Your task to perform on an android device: install app "Contacts" Image 0: 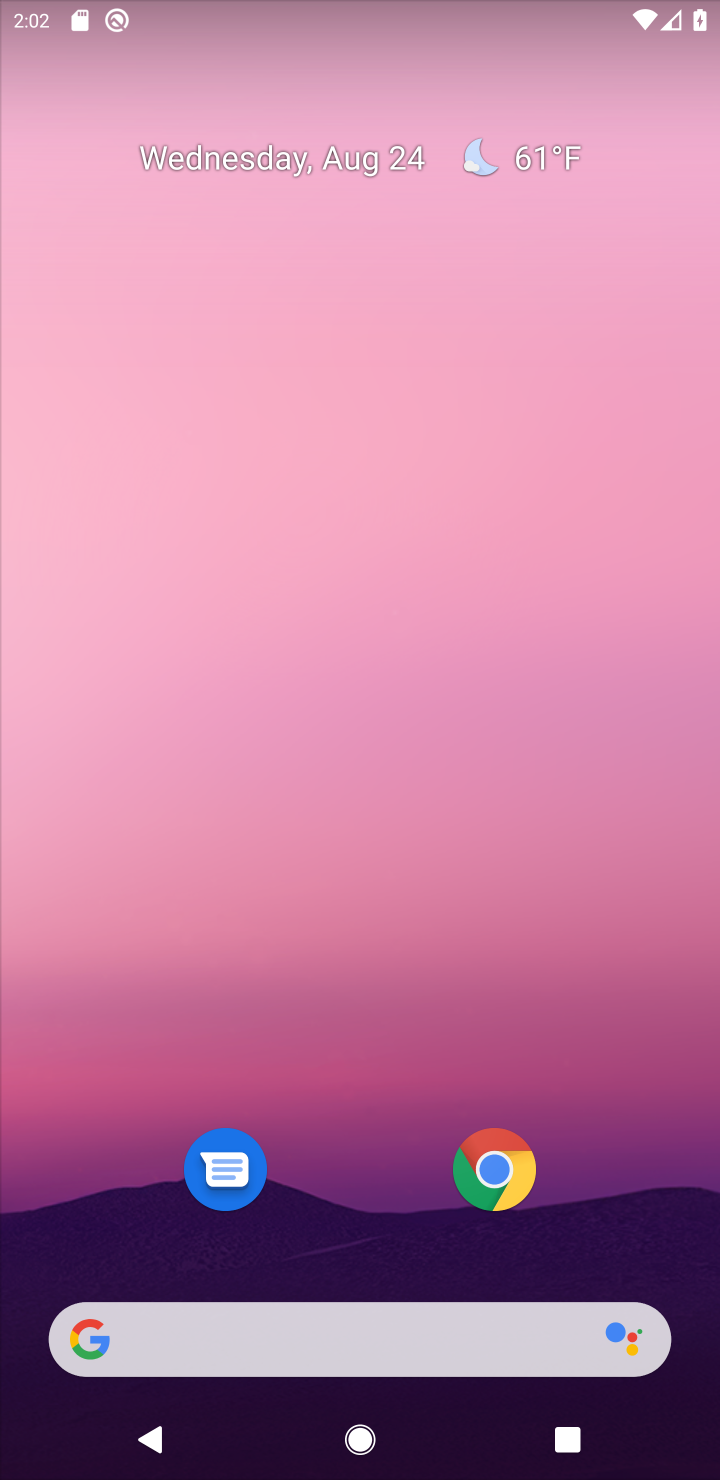
Step 0: drag from (472, 1302) to (358, 9)
Your task to perform on an android device: install app "Contacts" Image 1: 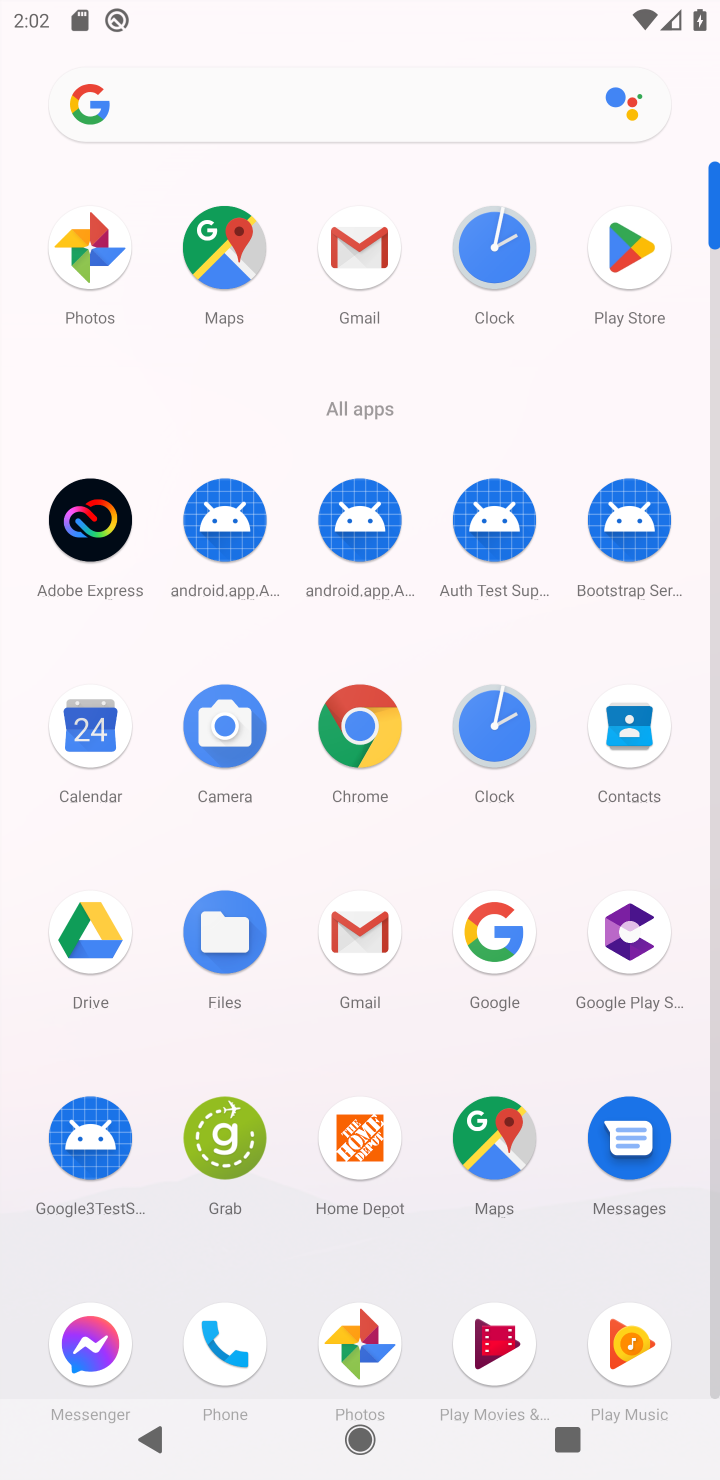
Step 1: click (632, 718)
Your task to perform on an android device: install app "Contacts" Image 2: 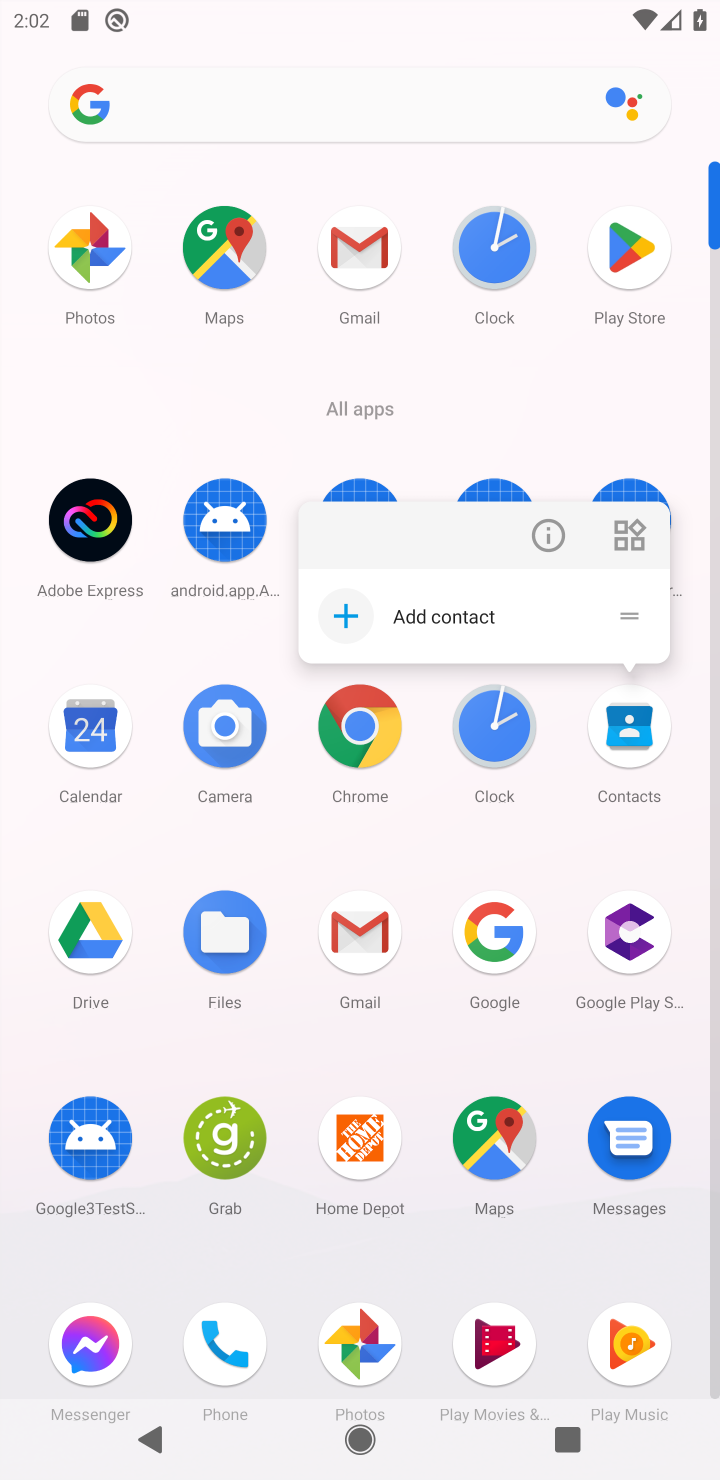
Step 2: click (632, 718)
Your task to perform on an android device: install app "Contacts" Image 3: 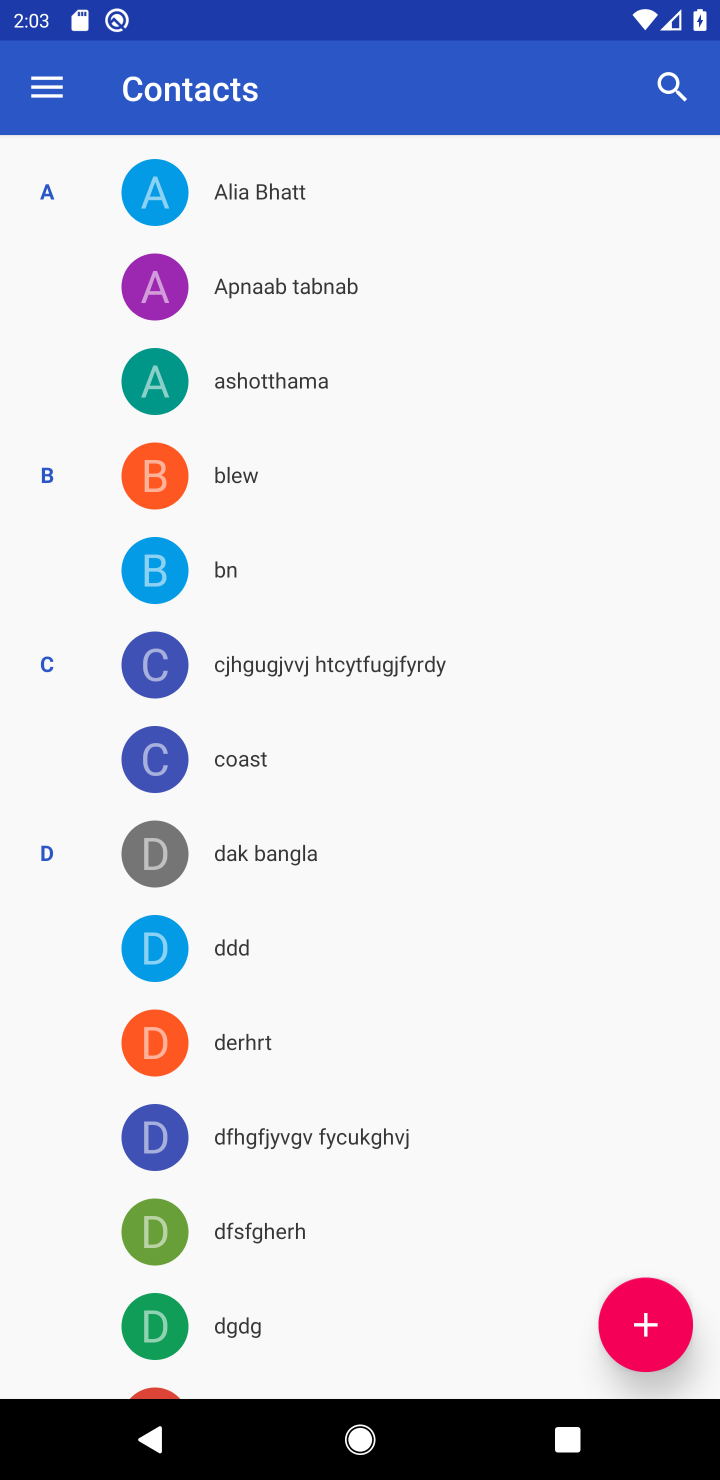
Step 3: task complete